Your task to perform on an android device: change the clock display to digital Image 0: 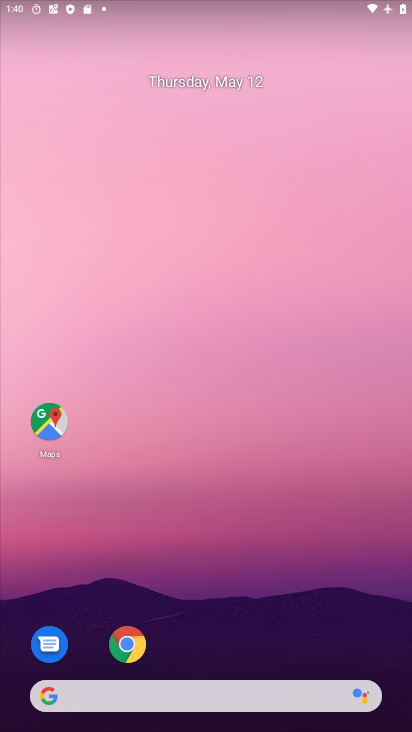
Step 0: drag from (208, 568) to (215, 118)
Your task to perform on an android device: change the clock display to digital Image 1: 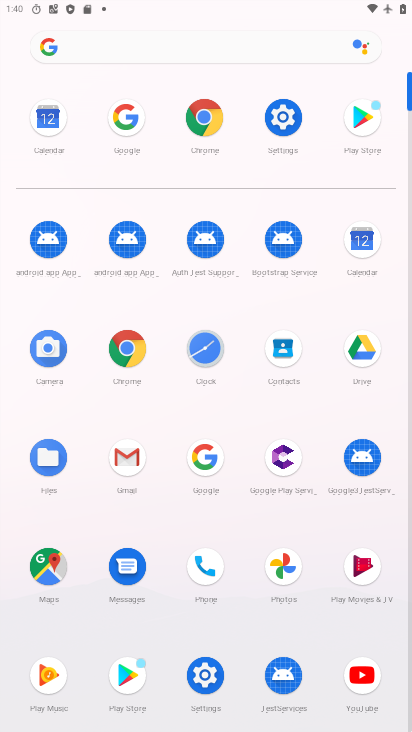
Step 1: click (201, 344)
Your task to perform on an android device: change the clock display to digital Image 2: 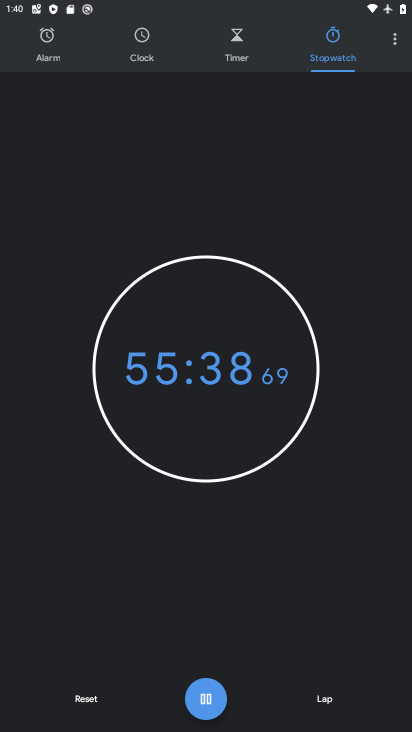
Step 2: click (396, 42)
Your task to perform on an android device: change the clock display to digital Image 3: 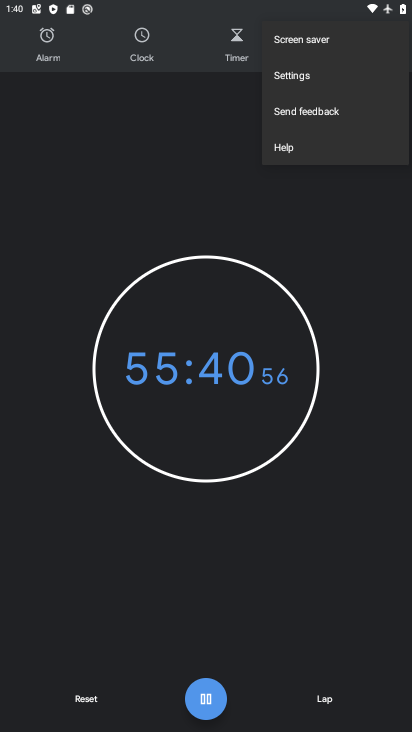
Step 3: click (321, 79)
Your task to perform on an android device: change the clock display to digital Image 4: 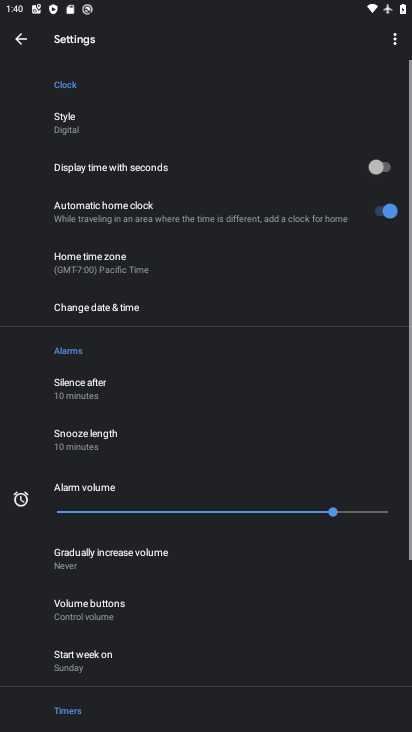
Step 4: click (115, 128)
Your task to perform on an android device: change the clock display to digital Image 5: 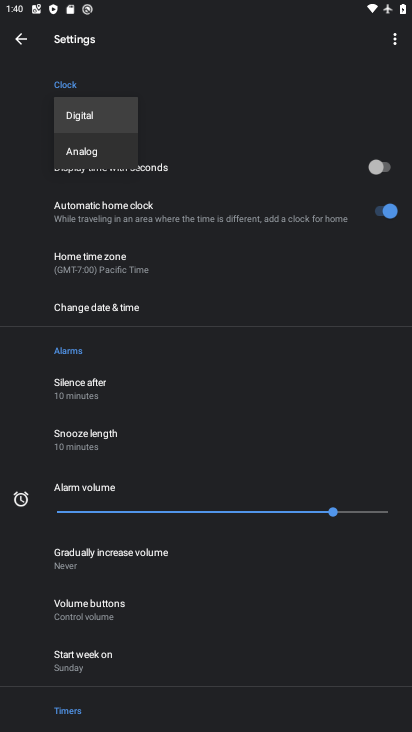
Step 5: click (120, 120)
Your task to perform on an android device: change the clock display to digital Image 6: 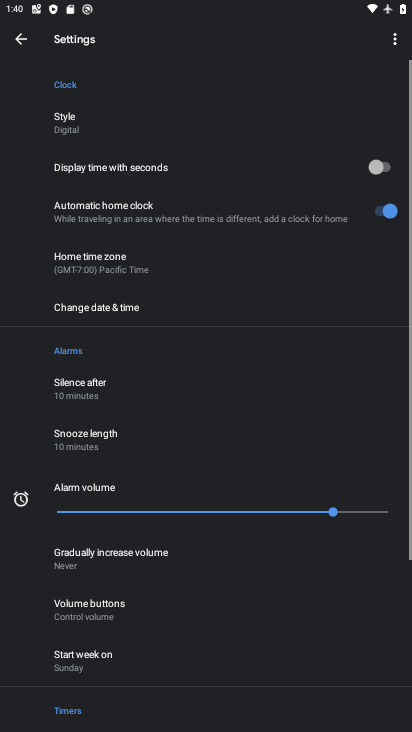
Step 6: task complete